Your task to perform on an android device: turn off picture-in-picture Image 0: 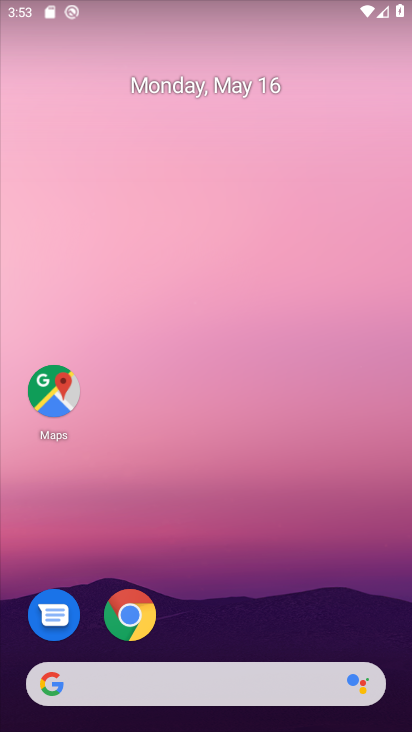
Step 0: drag from (224, 626) to (243, 1)
Your task to perform on an android device: turn off picture-in-picture Image 1: 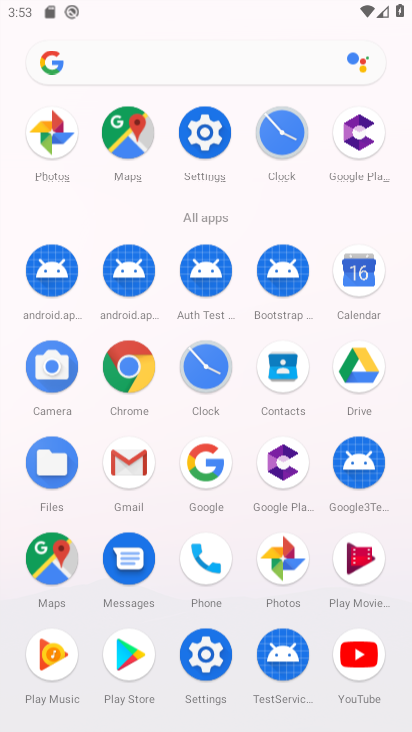
Step 1: click (207, 130)
Your task to perform on an android device: turn off picture-in-picture Image 2: 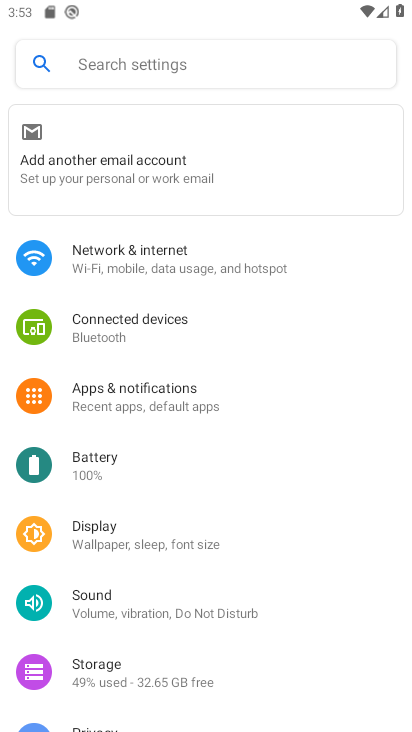
Step 2: click (77, 386)
Your task to perform on an android device: turn off picture-in-picture Image 3: 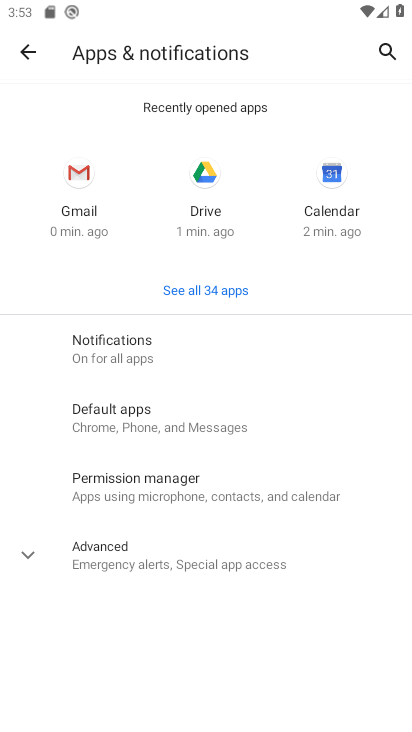
Step 3: click (106, 561)
Your task to perform on an android device: turn off picture-in-picture Image 4: 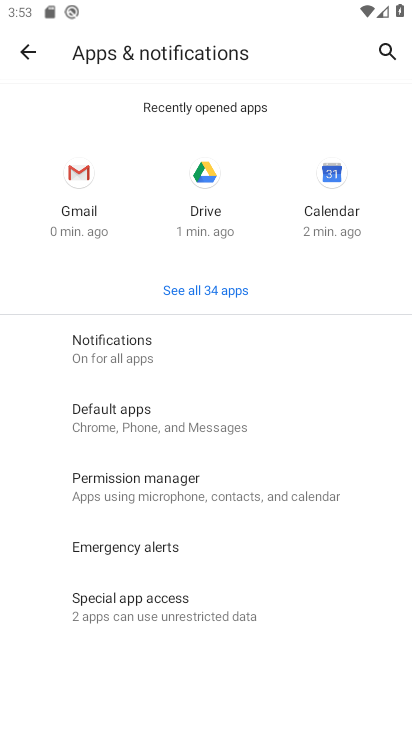
Step 4: drag from (130, 641) to (142, 608)
Your task to perform on an android device: turn off picture-in-picture Image 5: 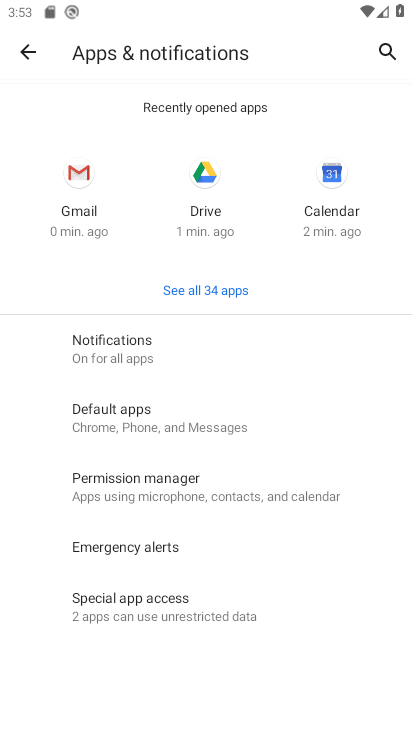
Step 5: click (92, 603)
Your task to perform on an android device: turn off picture-in-picture Image 6: 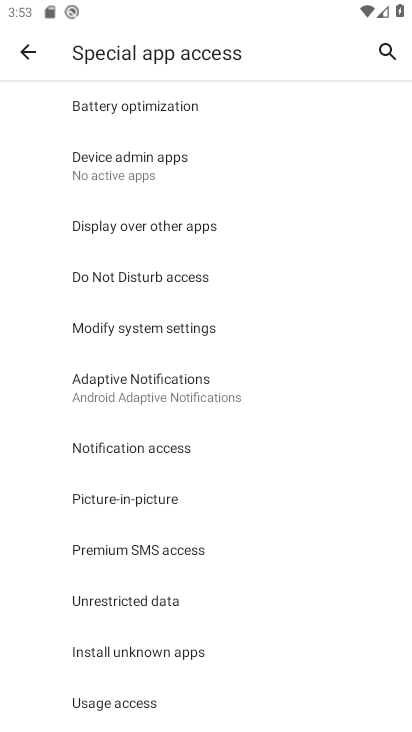
Step 6: click (134, 500)
Your task to perform on an android device: turn off picture-in-picture Image 7: 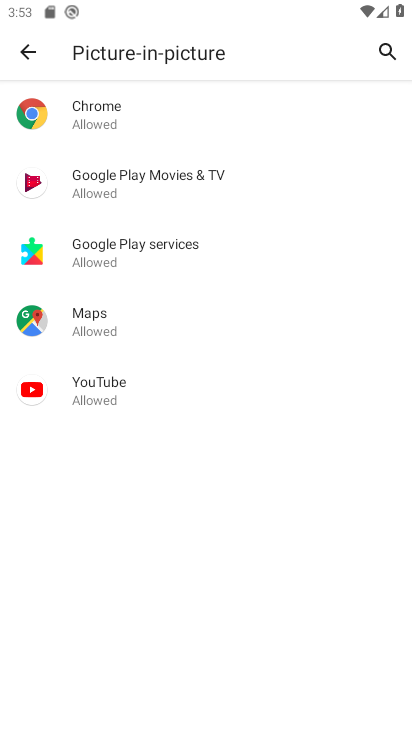
Step 7: click (104, 119)
Your task to perform on an android device: turn off picture-in-picture Image 8: 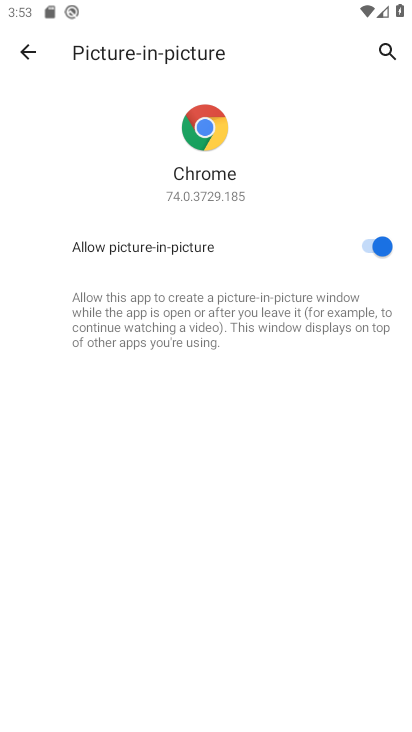
Step 8: click (366, 252)
Your task to perform on an android device: turn off picture-in-picture Image 9: 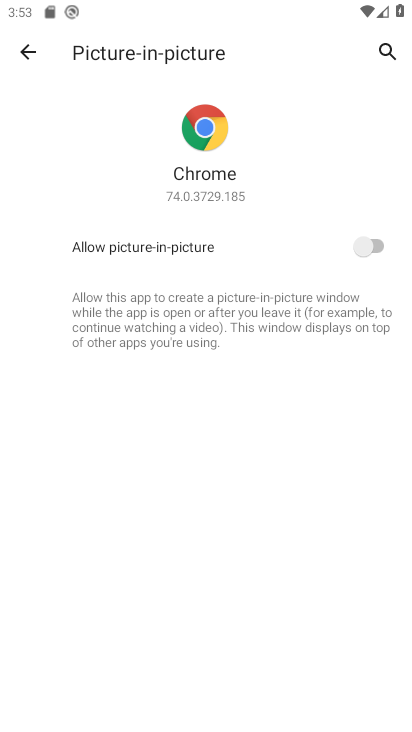
Step 9: task complete